Your task to perform on an android device: change timer sound Image 0: 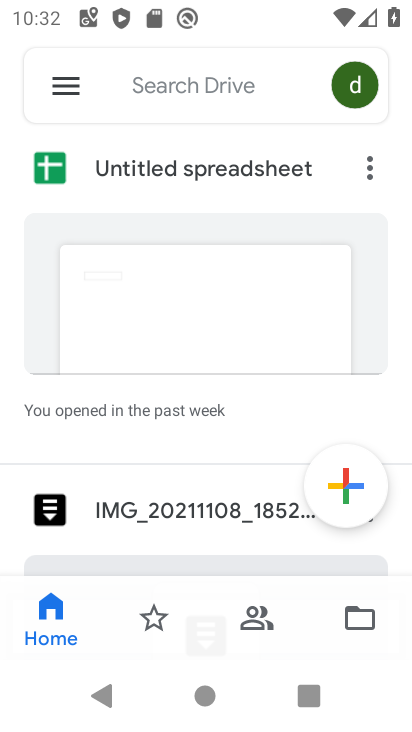
Step 0: press home button
Your task to perform on an android device: change timer sound Image 1: 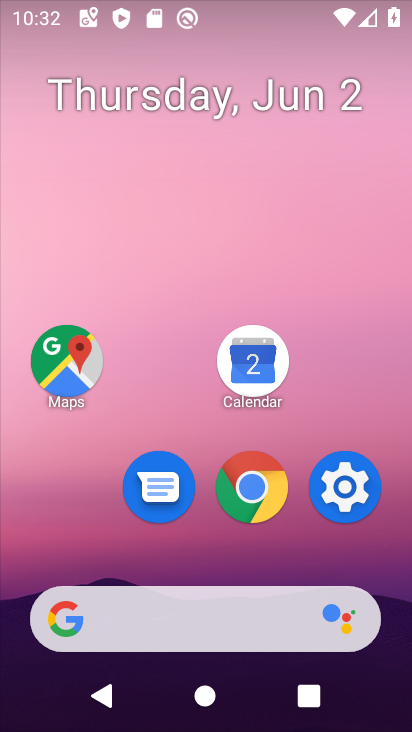
Step 1: drag from (238, 613) to (244, 201)
Your task to perform on an android device: change timer sound Image 2: 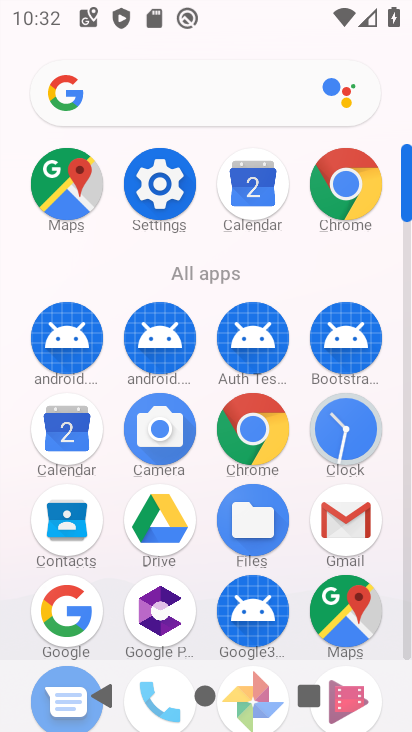
Step 2: click (341, 439)
Your task to perform on an android device: change timer sound Image 3: 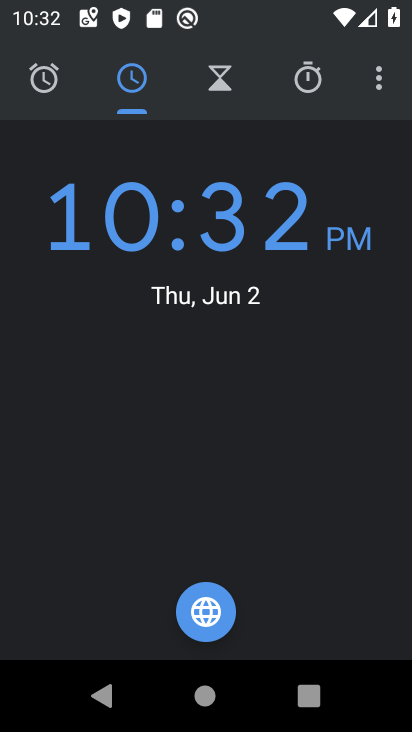
Step 3: click (375, 97)
Your task to perform on an android device: change timer sound Image 4: 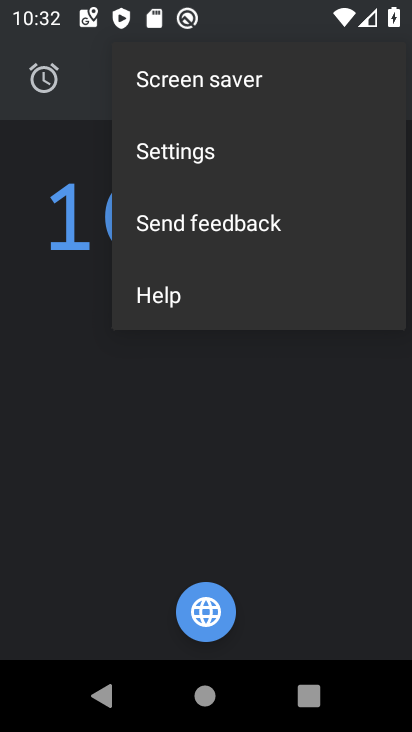
Step 4: click (193, 166)
Your task to perform on an android device: change timer sound Image 5: 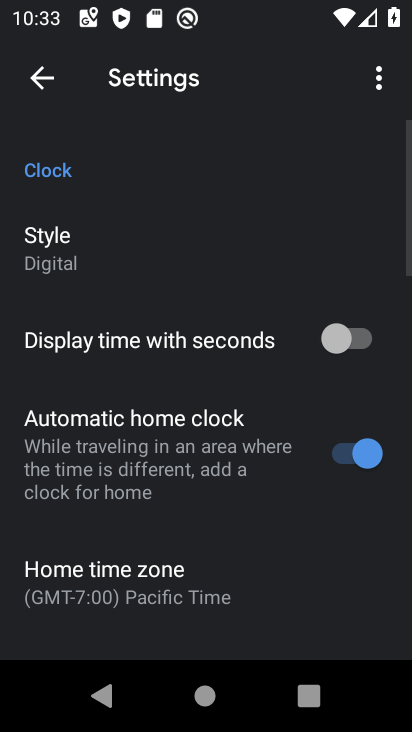
Step 5: drag from (107, 523) to (185, 182)
Your task to perform on an android device: change timer sound Image 6: 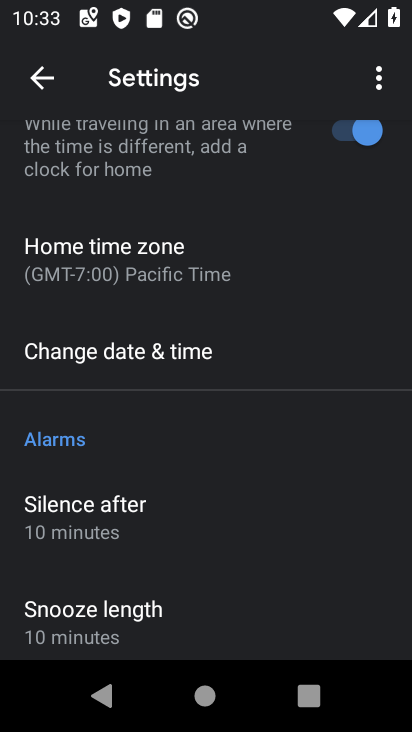
Step 6: drag from (99, 576) to (141, 260)
Your task to perform on an android device: change timer sound Image 7: 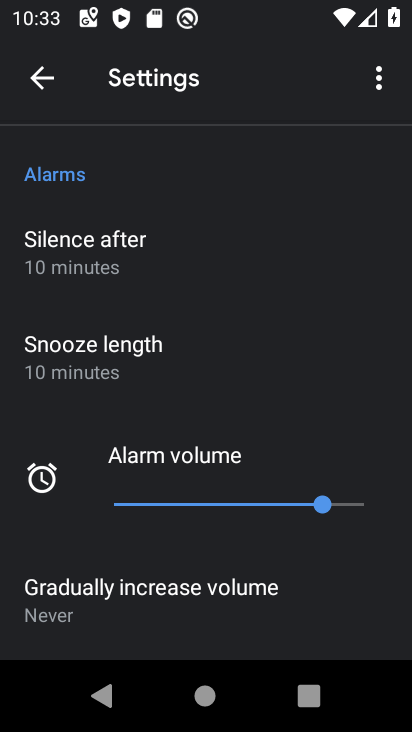
Step 7: drag from (152, 551) to (208, 297)
Your task to perform on an android device: change timer sound Image 8: 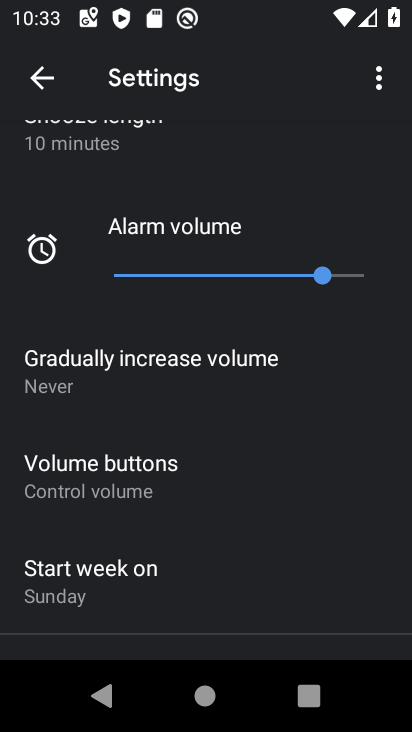
Step 8: drag from (139, 541) to (203, 228)
Your task to perform on an android device: change timer sound Image 9: 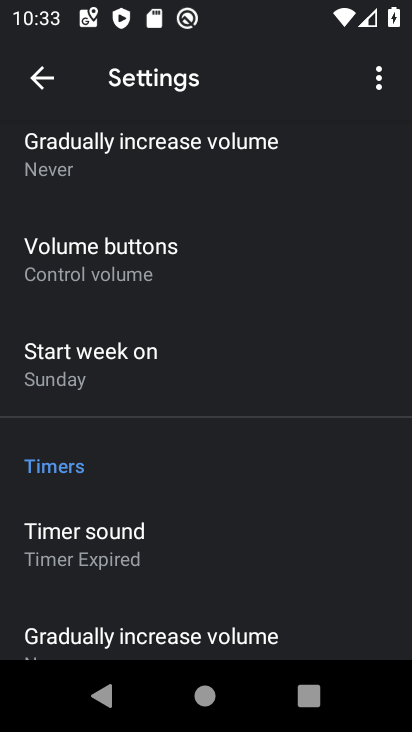
Step 9: click (98, 539)
Your task to perform on an android device: change timer sound Image 10: 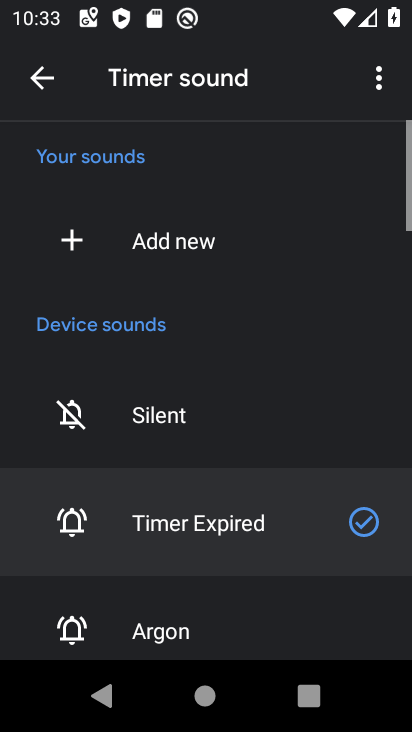
Step 10: click (162, 625)
Your task to perform on an android device: change timer sound Image 11: 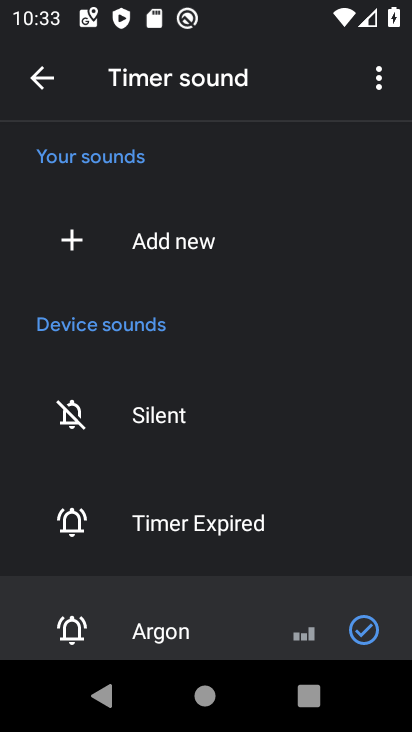
Step 11: task complete